Your task to perform on an android device: visit the assistant section in the google photos Image 0: 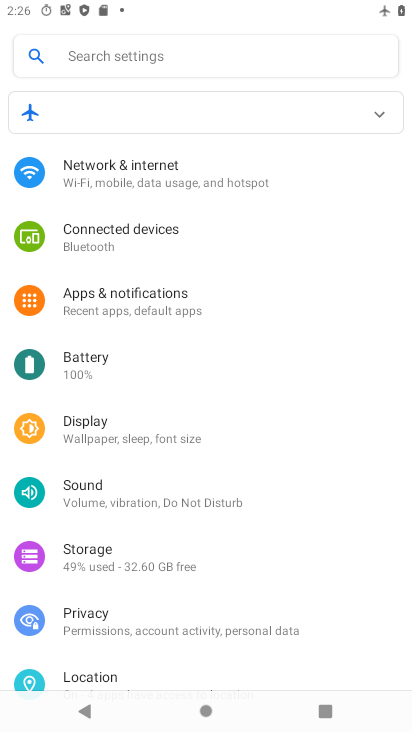
Step 0: press home button
Your task to perform on an android device: visit the assistant section in the google photos Image 1: 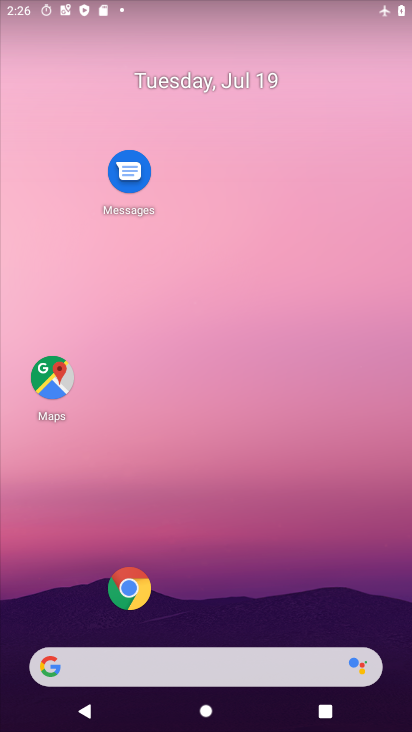
Step 1: drag from (83, 518) to (196, 135)
Your task to perform on an android device: visit the assistant section in the google photos Image 2: 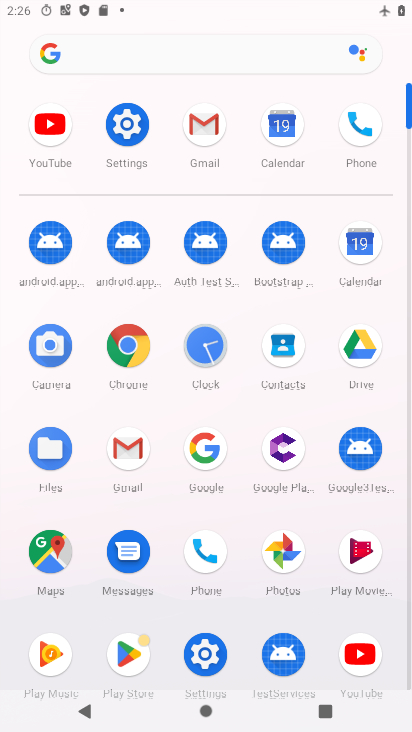
Step 2: drag from (108, 287) to (198, 1)
Your task to perform on an android device: visit the assistant section in the google photos Image 3: 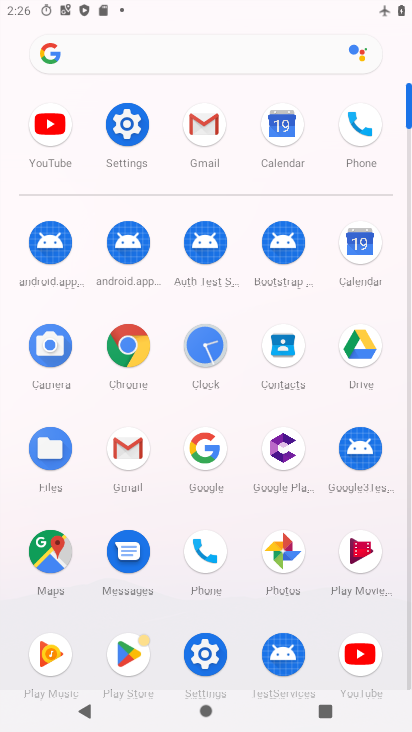
Step 3: click (281, 562)
Your task to perform on an android device: visit the assistant section in the google photos Image 4: 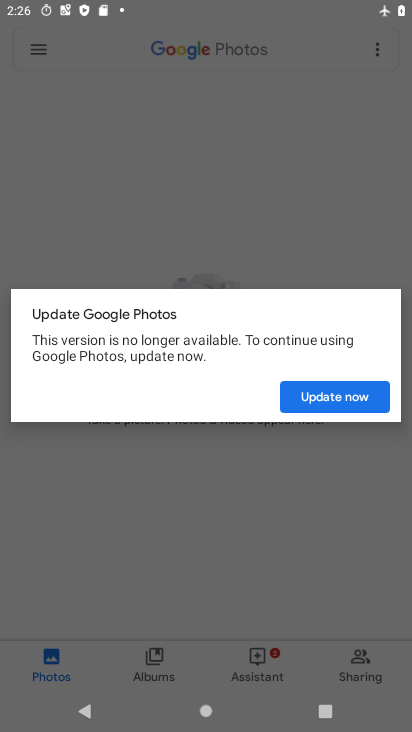
Step 4: click (318, 401)
Your task to perform on an android device: visit the assistant section in the google photos Image 5: 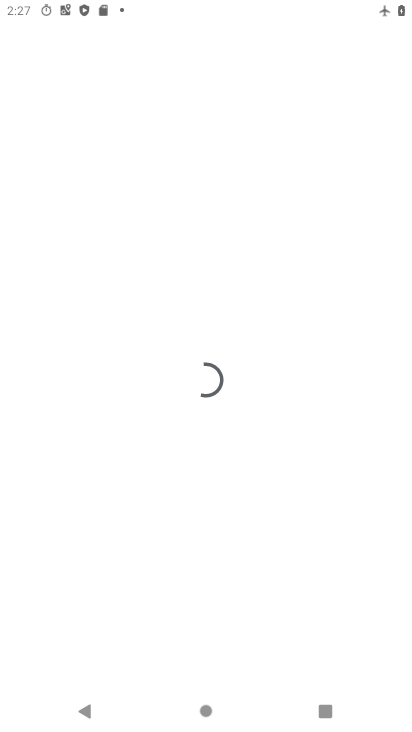
Step 5: task complete